Your task to perform on an android device: Open sound settings Image 0: 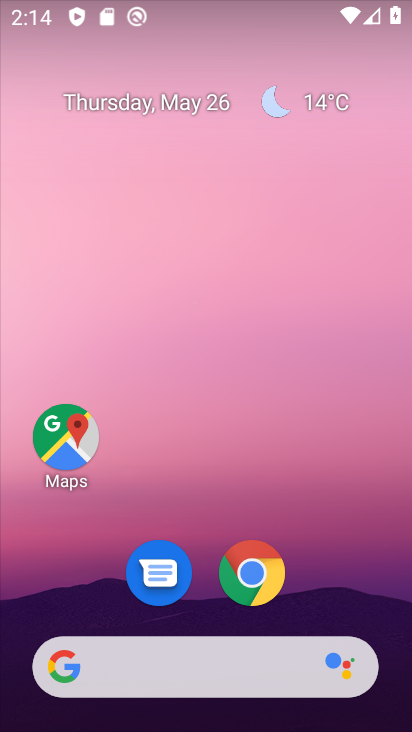
Step 0: drag from (296, 469) to (230, 12)
Your task to perform on an android device: Open sound settings Image 1: 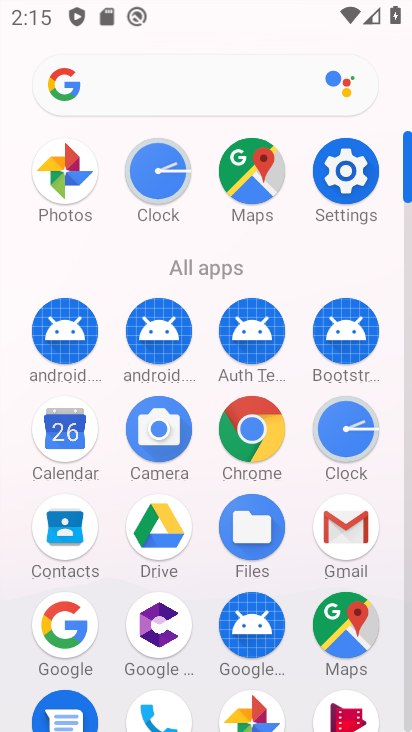
Step 1: drag from (13, 529) to (29, 201)
Your task to perform on an android device: Open sound settings Image 2: 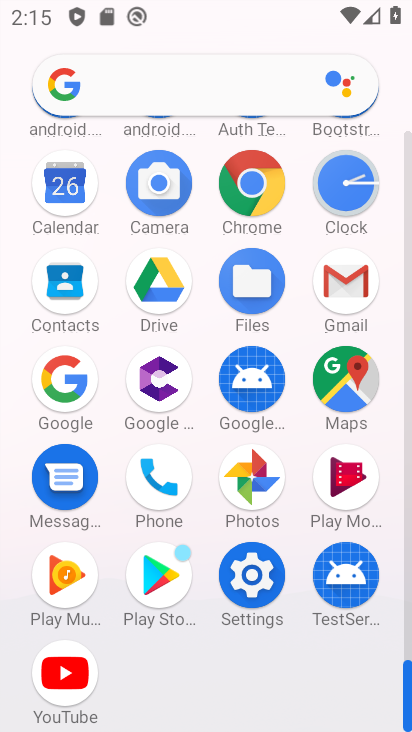
Step 2: click (251, 570)
Your task to perform on an android device: Open sound settings Image 3: 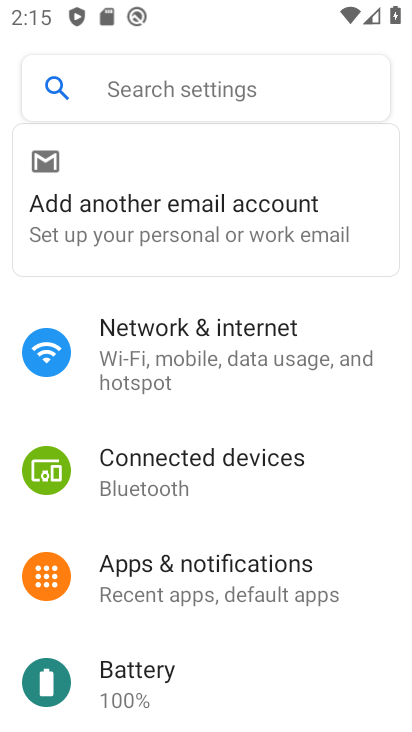
Step 3: drag from (298, 598) to (311, 281)
Your task to perform on an android device: Open sound settings Image 4: 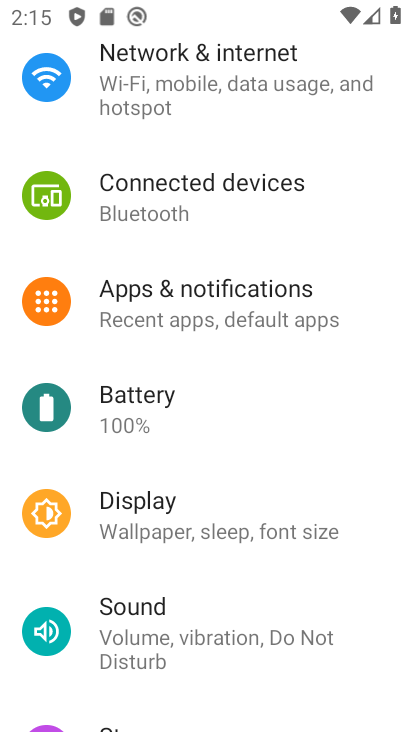
Step 4: click (207, 656)
Your task to perform on an android device: Open sound settings Image 5: 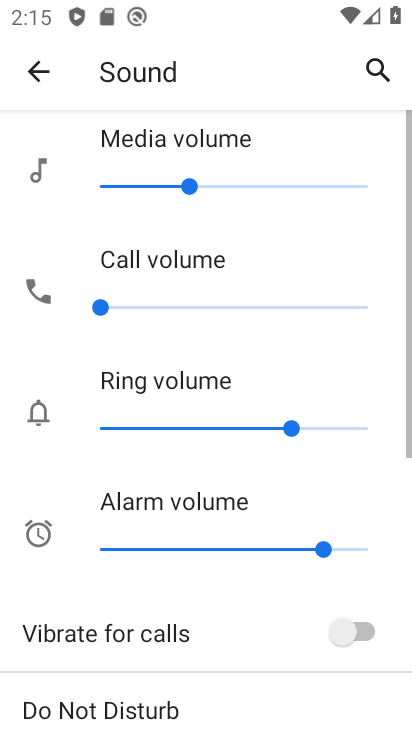
Step 5: drag from (206, 634) to (209, 252)
Your task to perform on an android device: Open sound settings Image 6: 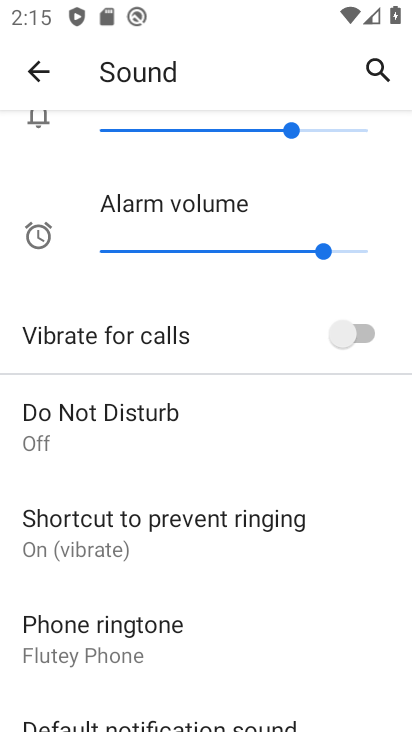
Step 6: drag from (184, 630) to (202, 162)
Your task to perform on an android device: Open sound settings Image 7: 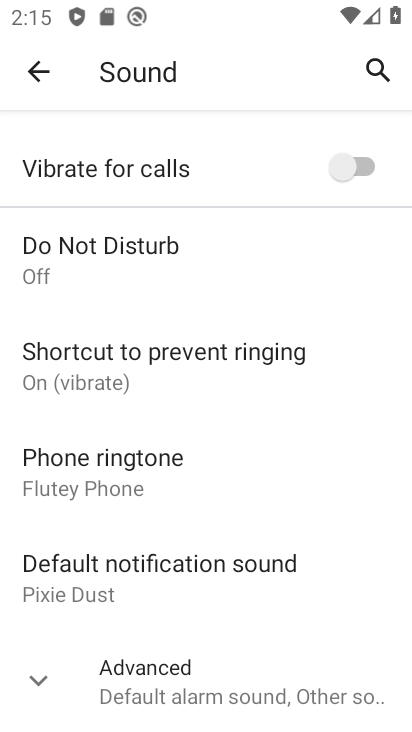
Step 7: drag from (284, 598) to (240, 220)
Your task to perform on an android device: Open sound settings Image 8: 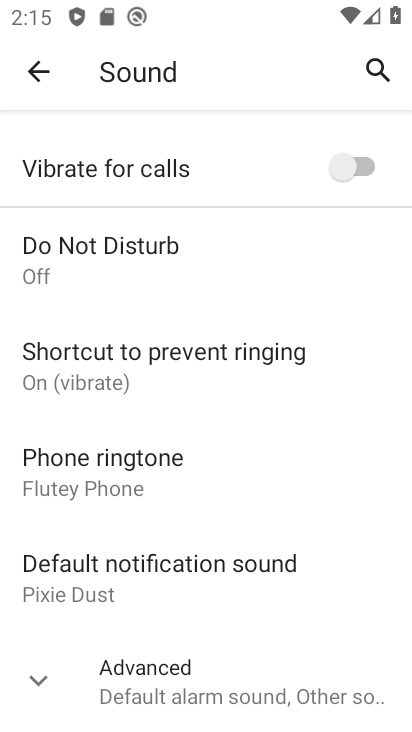
Step 8: click (43, 683)
Your task to perform on an android device: Open sound settings Image 9: 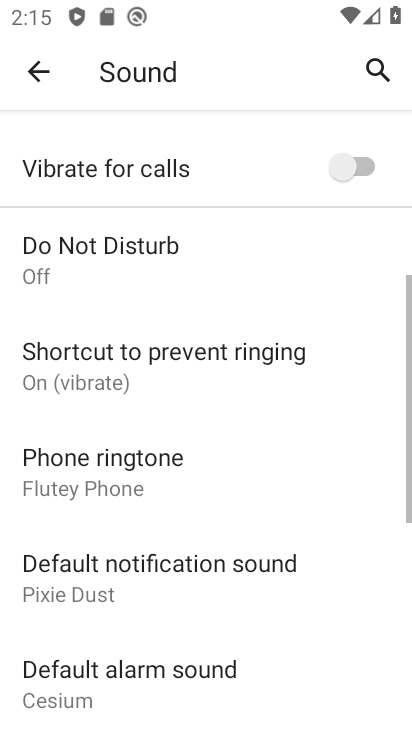
Step 9: task complete